Your task to perform on an android device: open app "Nova Launcher" (install if not already installed) Image 0: 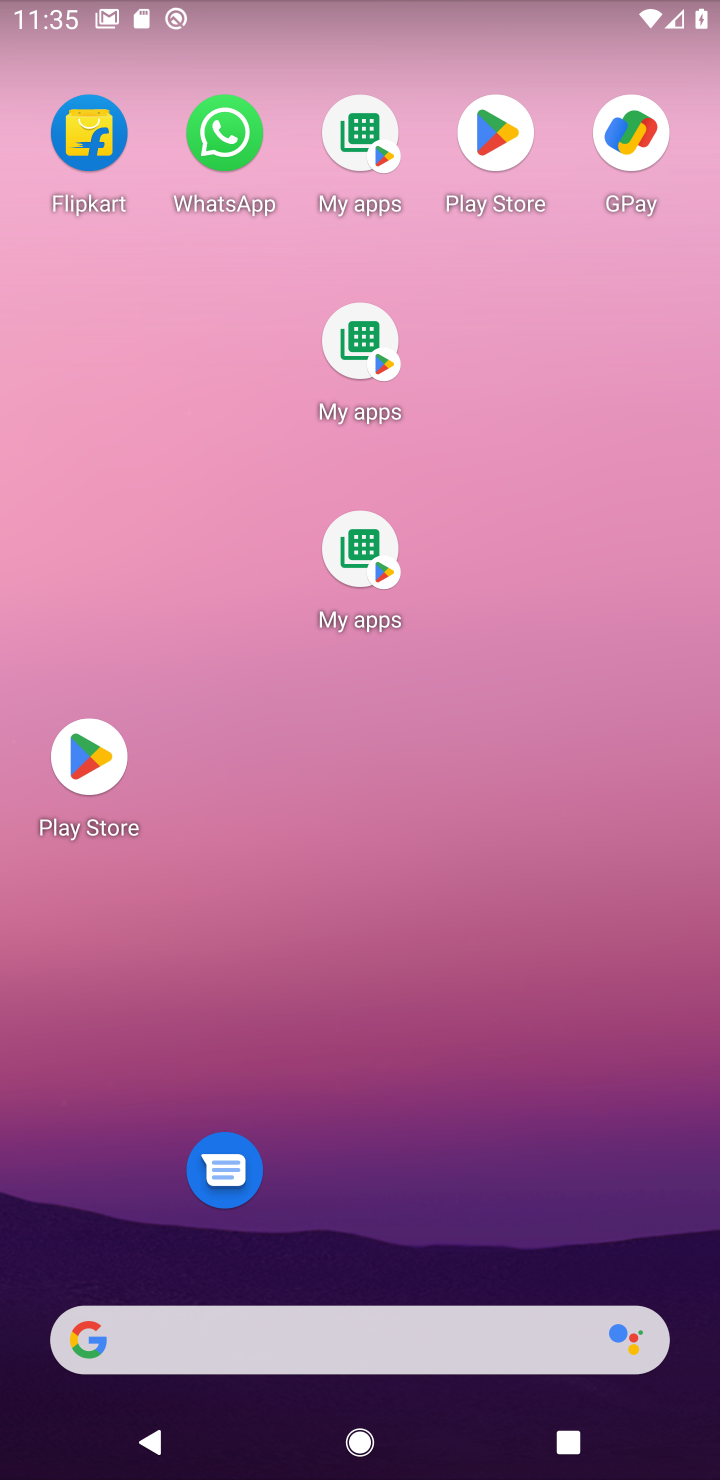
Step 0: drag from (534, 1393) to (513, 500)
Your task to perform on an android device: open app "Nova Launcher" (install if not already installed) Image 1: 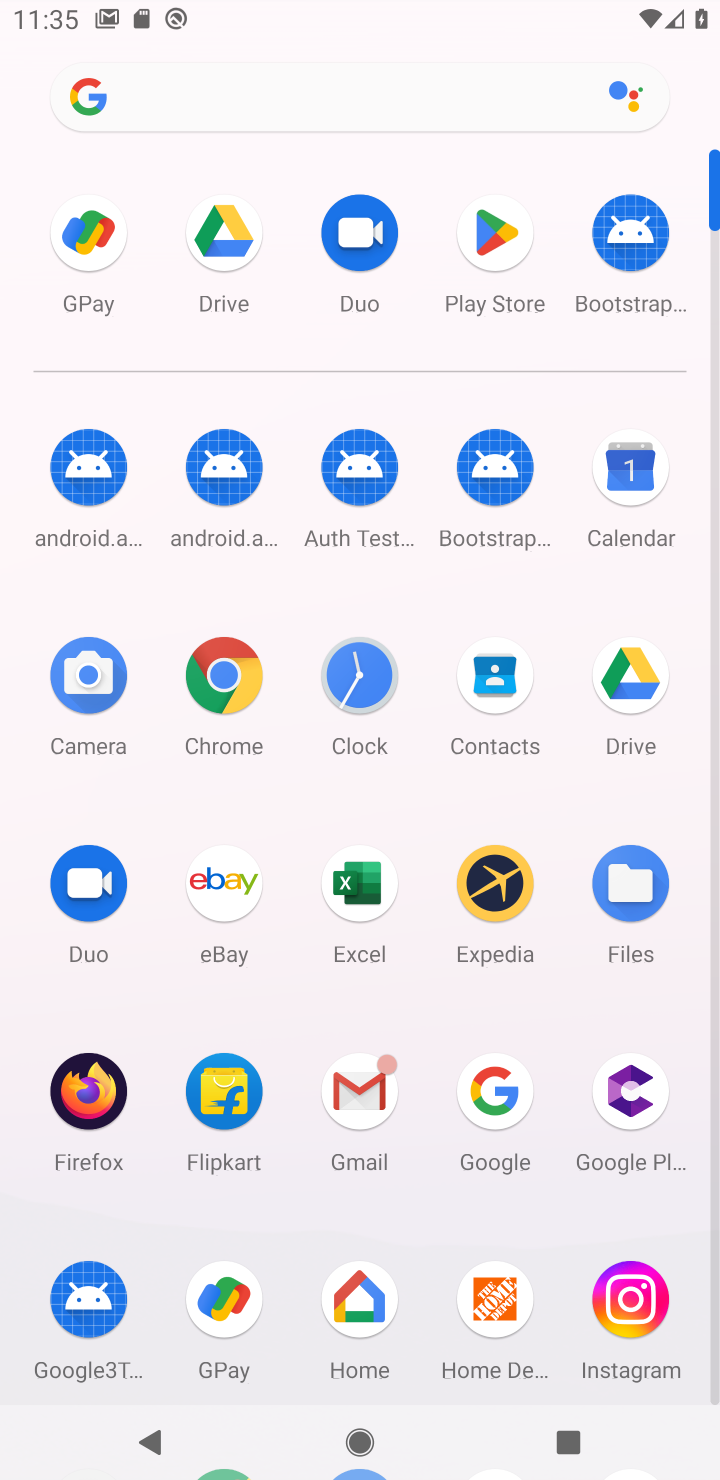
Step 1: click (476, 229)
Your task to perform on an android device: open app "Nova Launcher" (install if not already installed) Image 2: 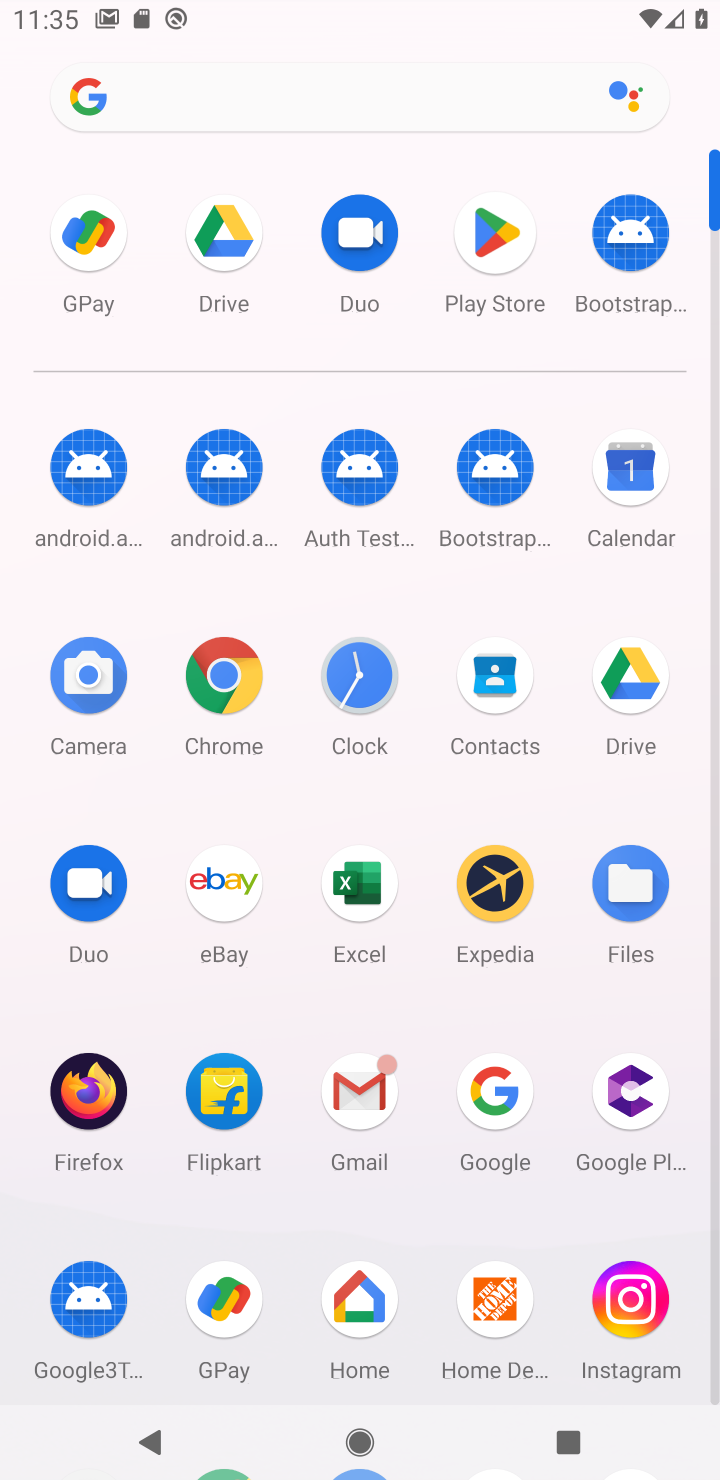
Step 2: click (493, 229)
Your task to perform on an android device: open app "Nova Launcher" (install if not already installed) Image 3: 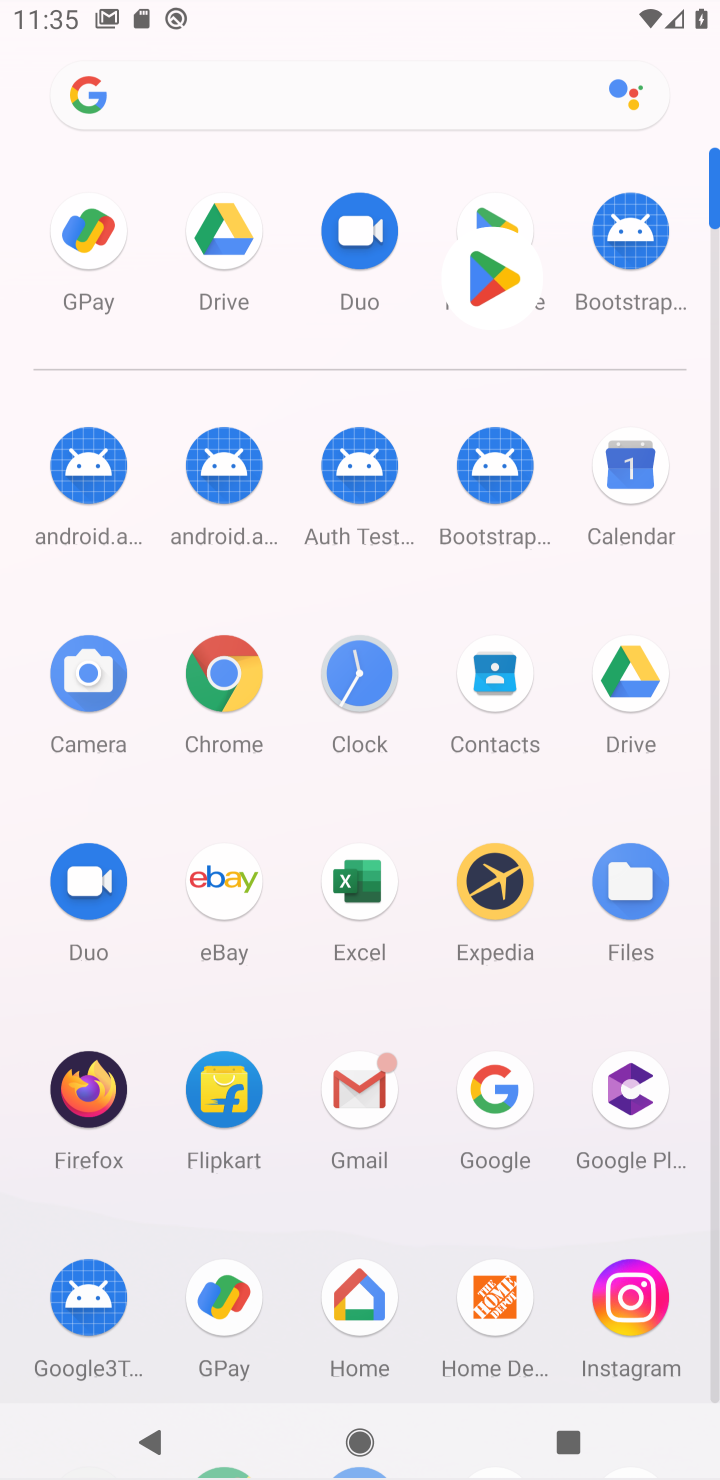
Step 3: click (529, 274)
Your task to perform on an android device: open app "Nova Launcher" (install if not already installed) Image 4: 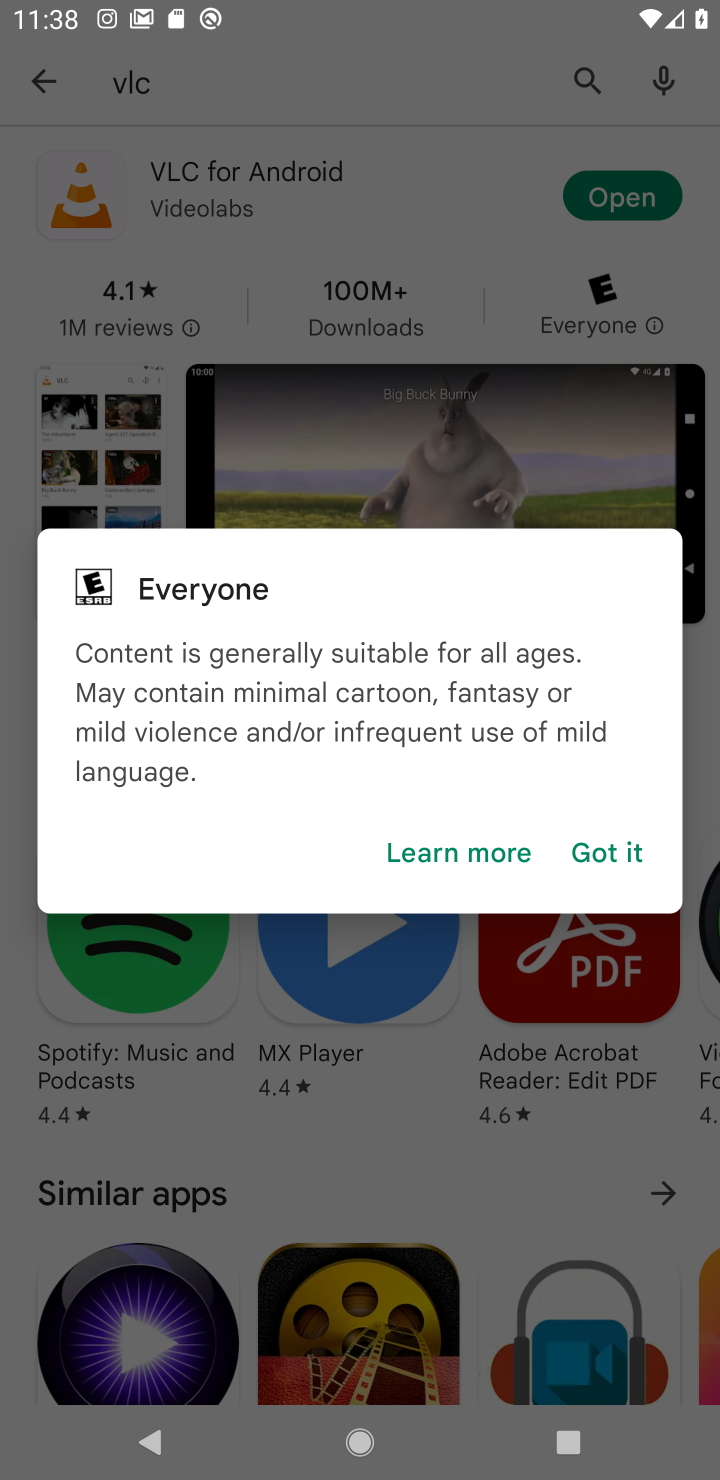
Step 4: click (608, 849)
Your task to perform on an android device: open app "Nova Launcher" (install if not already installed) Image 5: 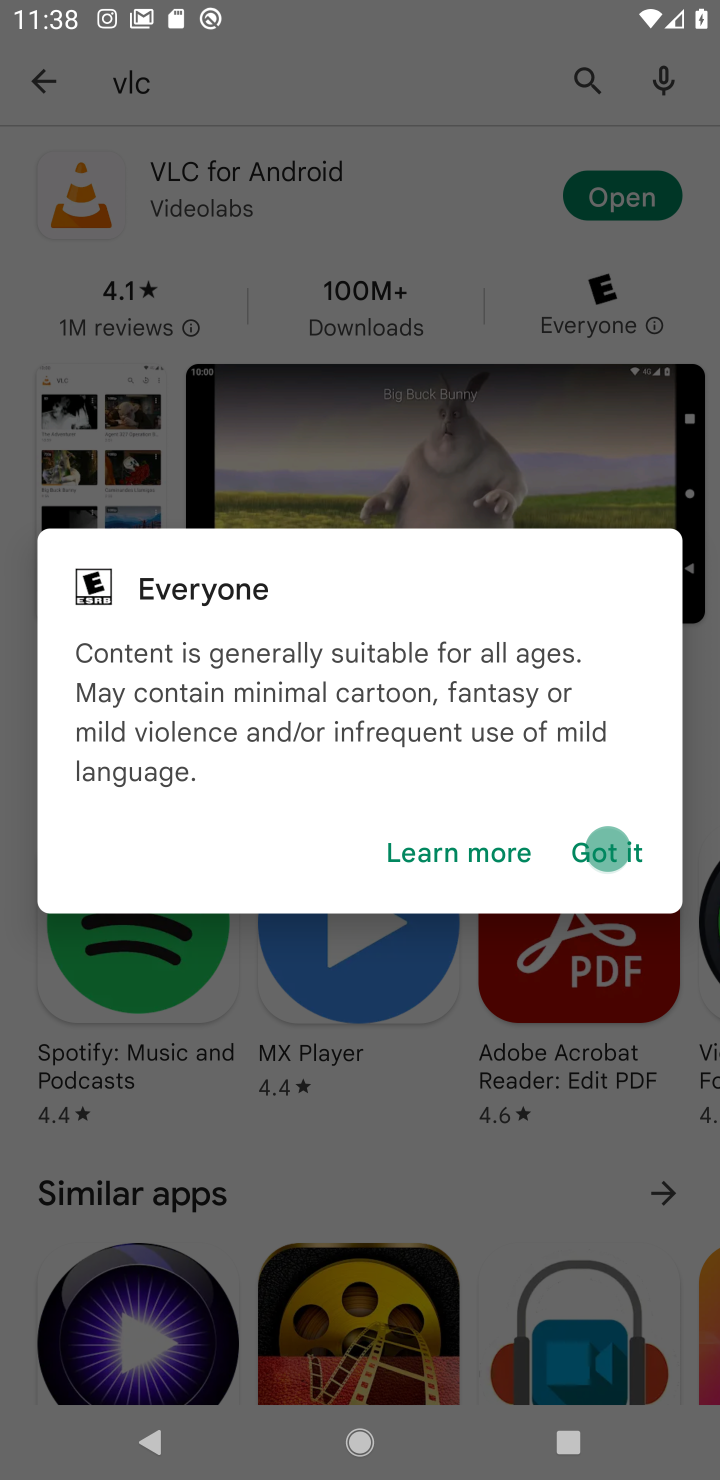
Step 5: click (611, 854)
Your task to perform on an android device: open app "Nova Launcher" (install if not already installed) Image 6: 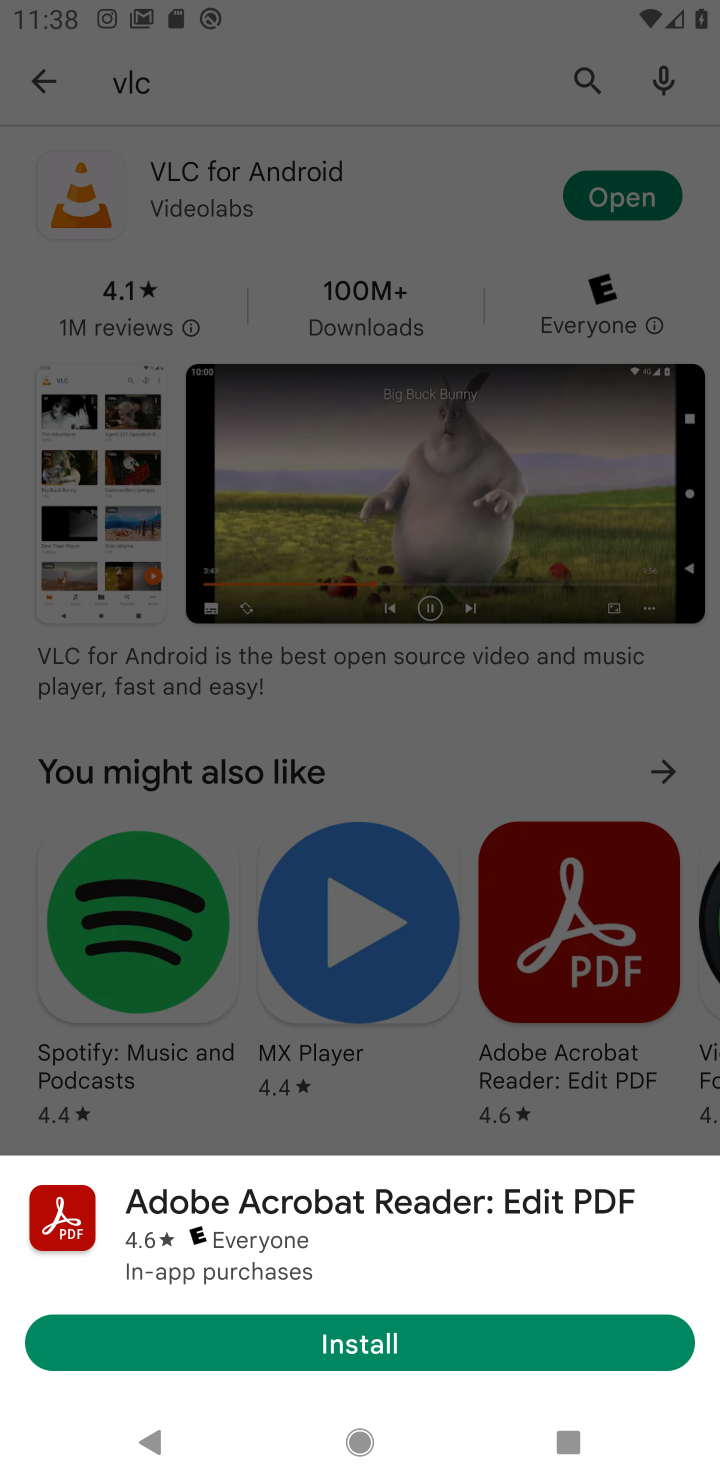
Step 6: click (584, 209)
Your task to perform on an android device: open app "Nova Launcher" (install if not already installed) Image 7: 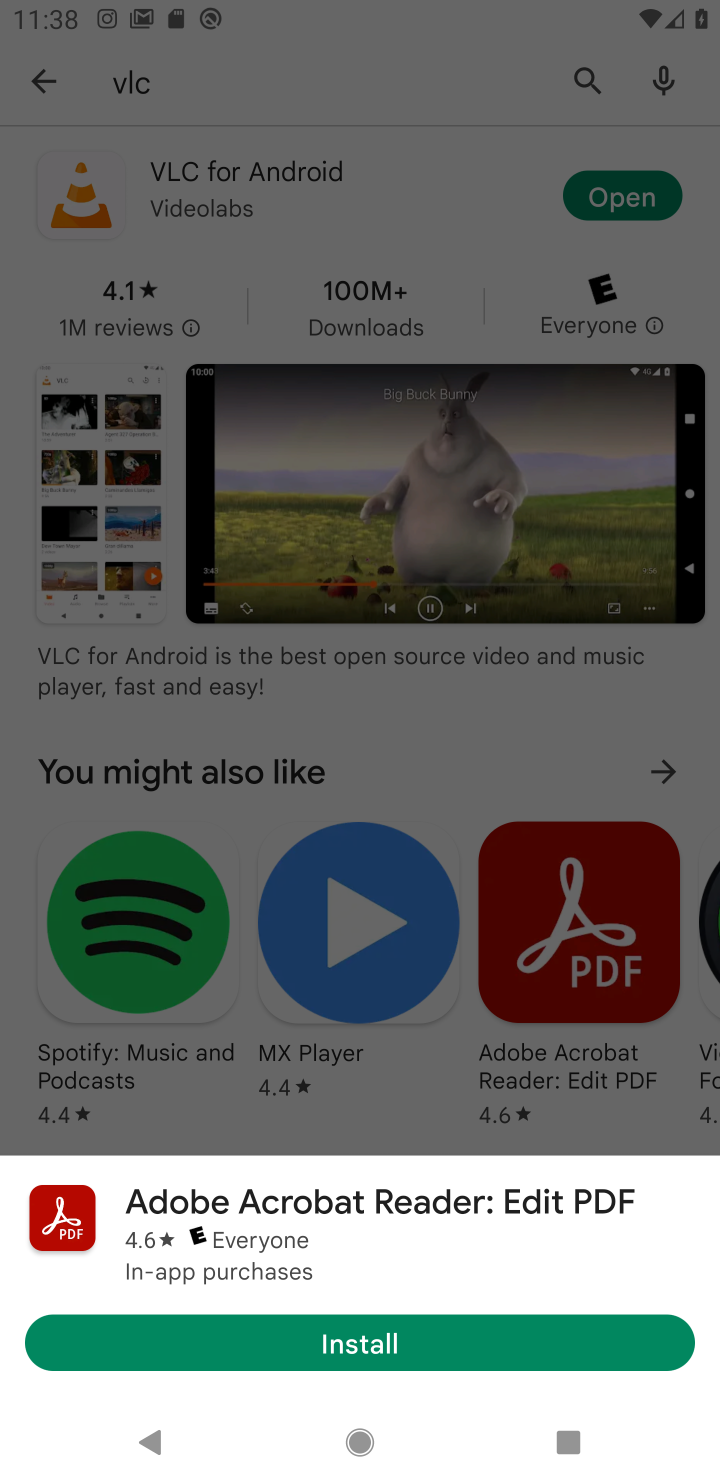
Step 7: click (589, 207)
Your task to perform on an android device: open app "Nova Launcher" (install if not already installed) Image 8: 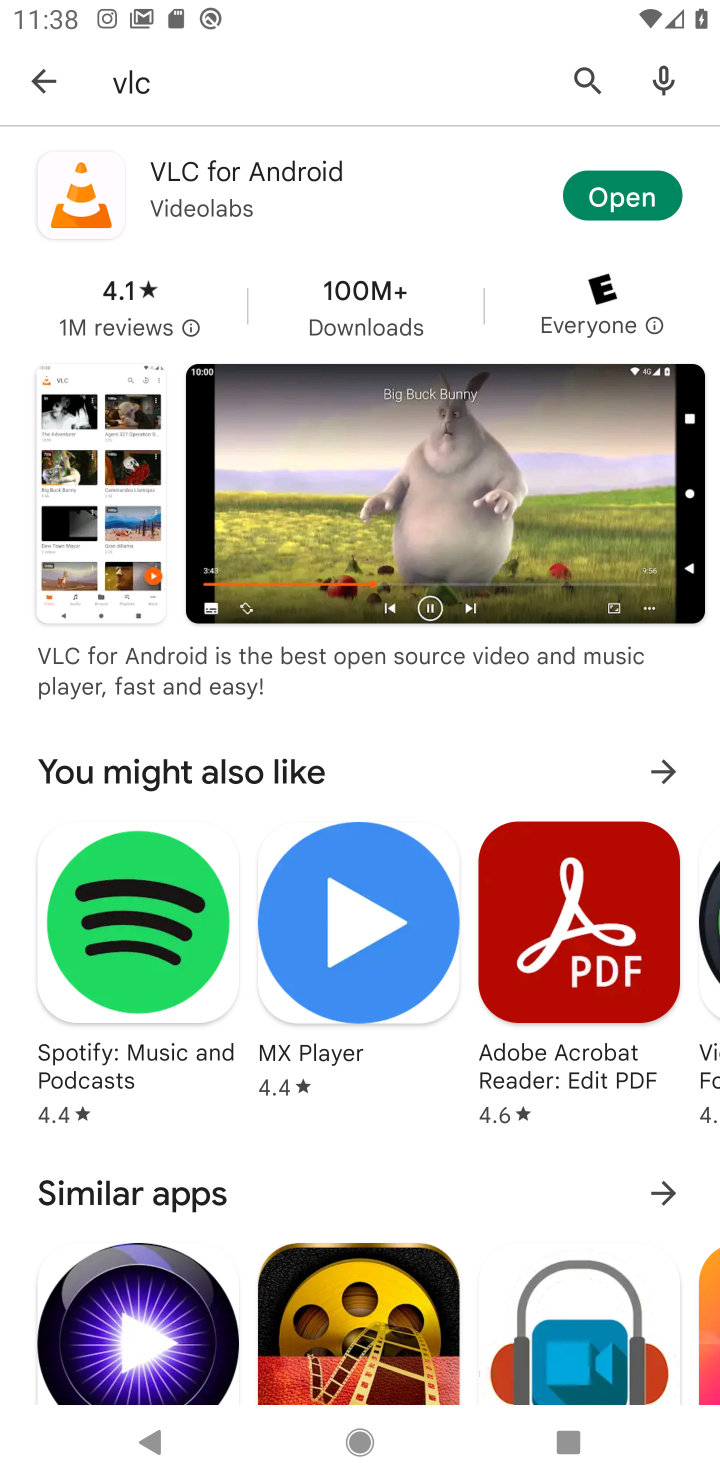
Step 8: task complete